Your task to perform on an android device: turn off translation in the chrome app Image 0: 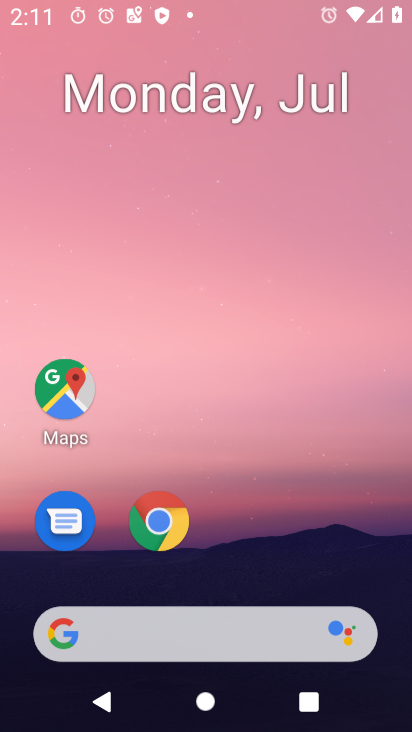
Step 0: press home button
Your task to perform on an android device: turn off translation in the chrome app Image 1: 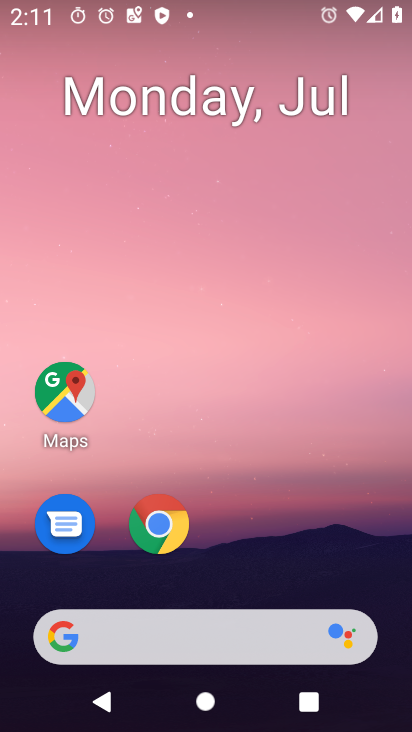
Step 1: drag from (242, 594) to (287, 114)
Your task to perform on an android device: turn off translation in the chrome app Image 2: 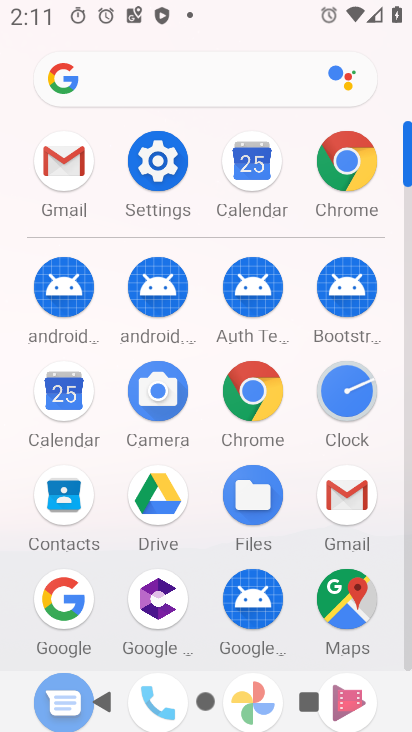
Step 2: click (243, 386)
Your task to perform on an android device: turn off translation in the chrome app Image 3: 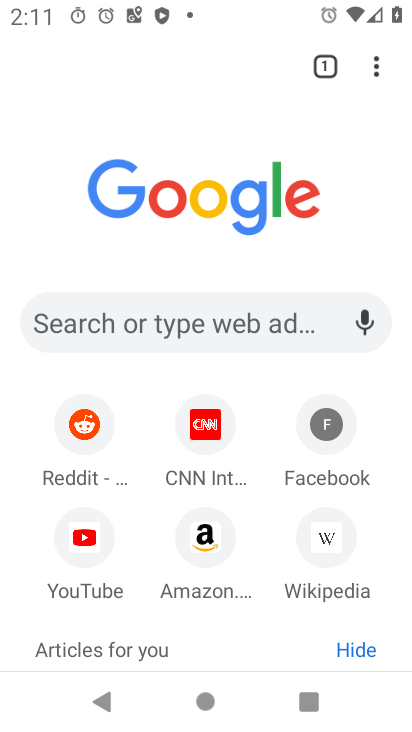
Step 3: drag from (377, 64) to (155, 553)
Your task to perform on an android device: turn off translation in the chrome app Image 4: 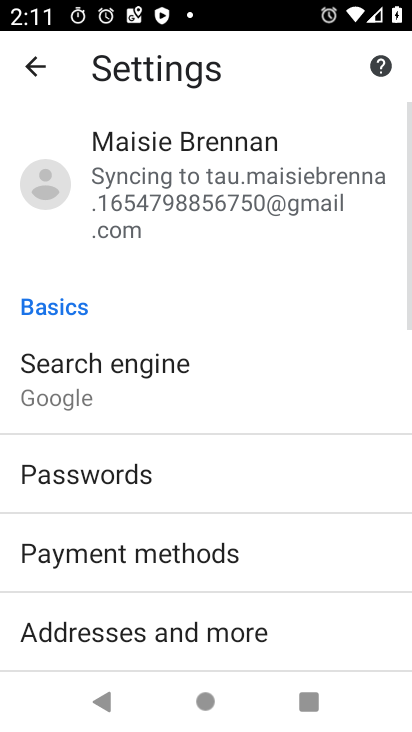
Step 4: drag from (320, 635) to (335, 207)
Your task to perform on an android device: turn off translation in the chrome app Image 5: 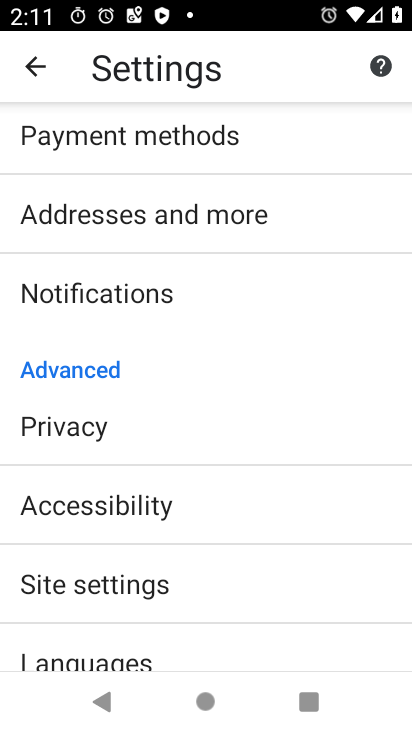
Step 5: drag from (272, 642) to (275, 442)
Your task to perform on an android device: turn off translation in the chrome app Image 6: 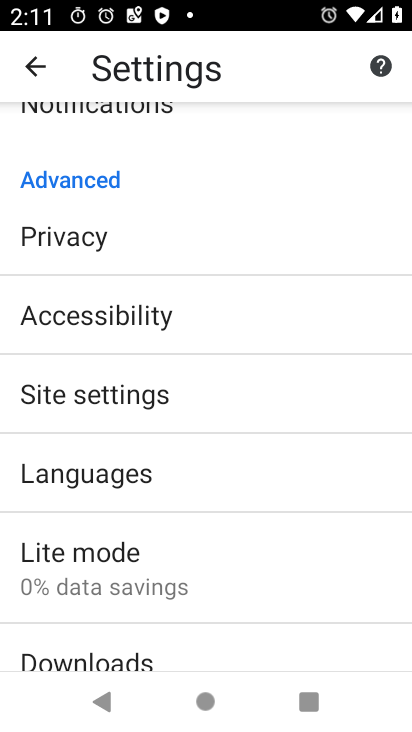
Step 6: click (87, 483)
Your task to perform on an android device: turn off translation in the chrome app Image 7: 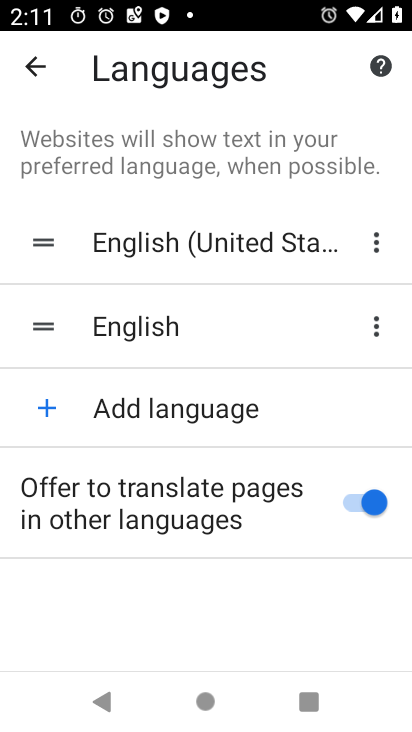
Step 7: click (372, 499)
Your task to perform on an android device: turn off translation in the chrome app Image 8: 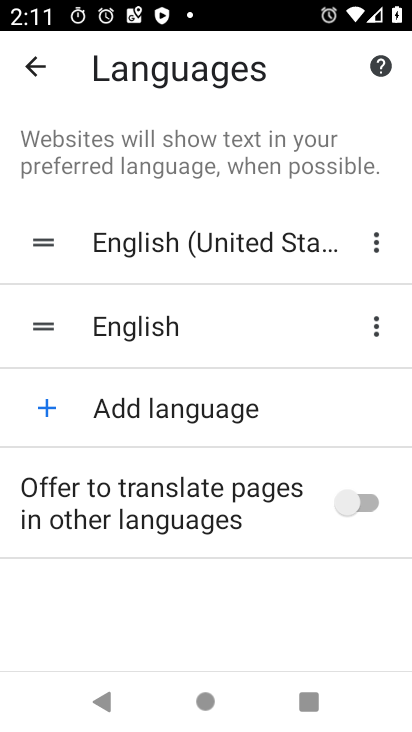
Step 8: task complete